Your task to perform on an android device: Clear the cart on newegg.com. Image 0: 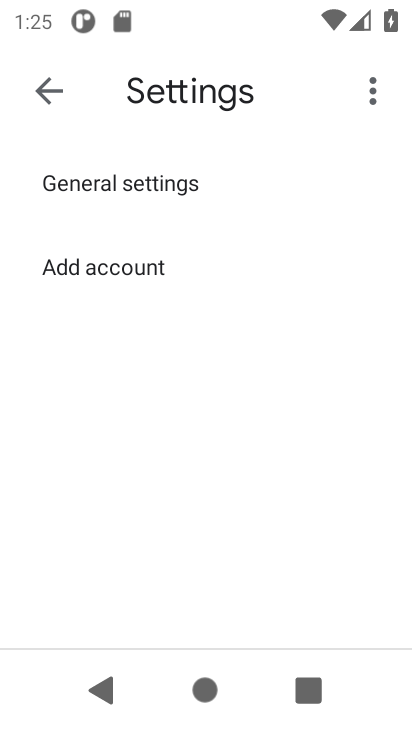
Step 0: press home button
Your task to perform on an android device: Clear the cart on newegg.com. Image 1: 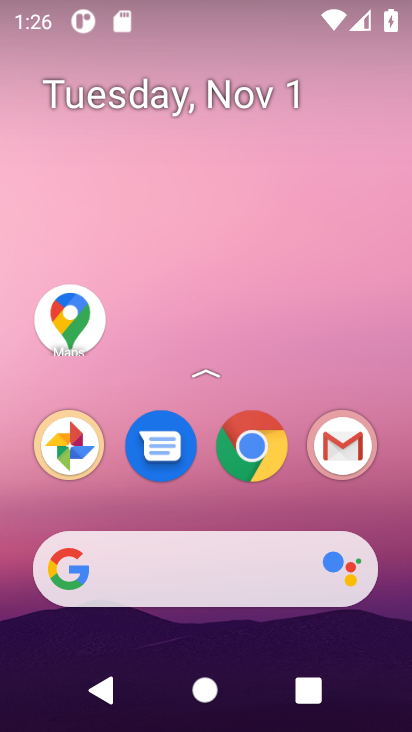
Step 1: click (246, 444)
Your task to perform on an android device: Clear the cart on newegg.com. Image 2: 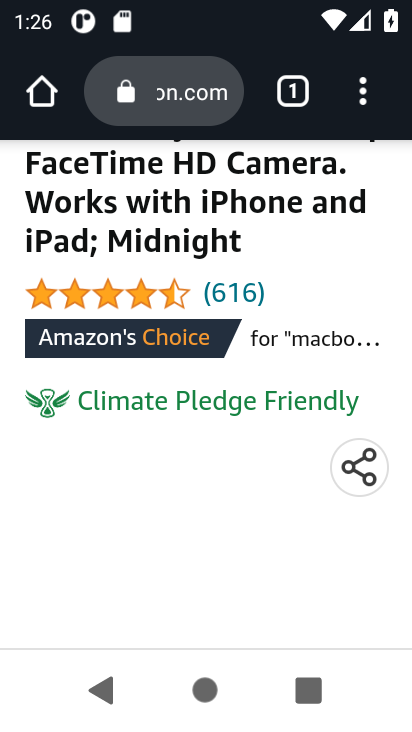
Step 2: click (171, 72)
Your task to perform on an android device: Clear the cart on newegg.com. Image 3: 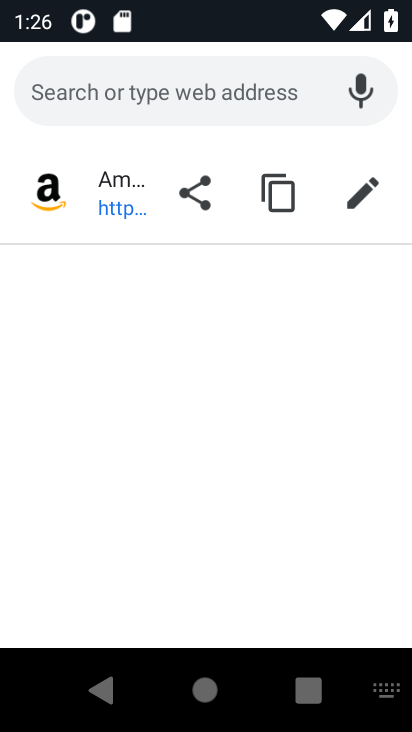
Step 3: type "newegg.com"
Your task to perform on an android device: Clear the cart on newegg.com. Image 4: 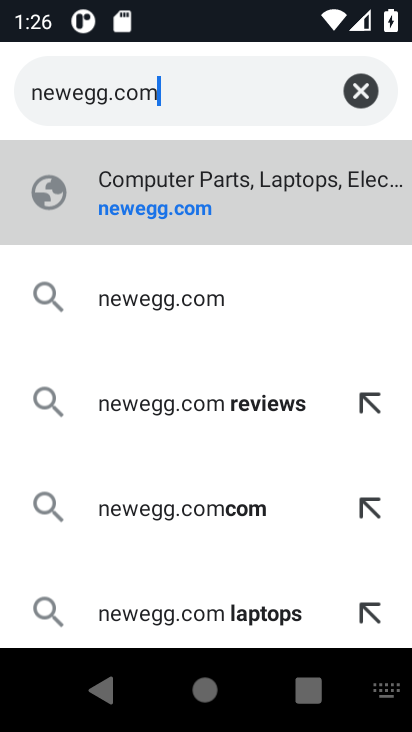
Step 4: click (163, 185)
Your task to perform on an android device: Clear the cart on newegg.com. Image 5: 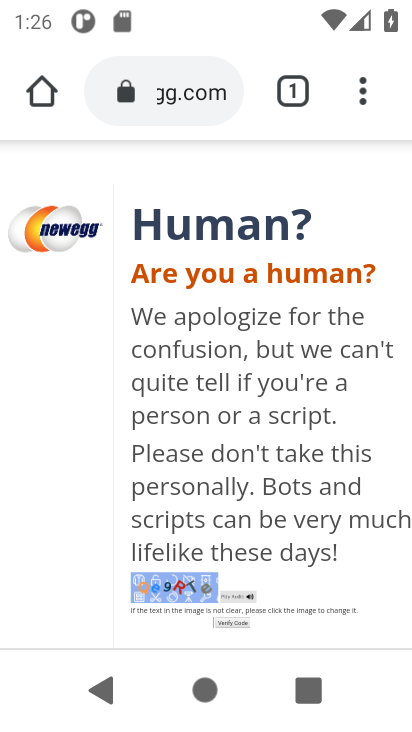
Step 5: drag from (266, 583) to (264, 392)
Your task to perform on an android device: Clear the cart on newegg.com. Image 6: 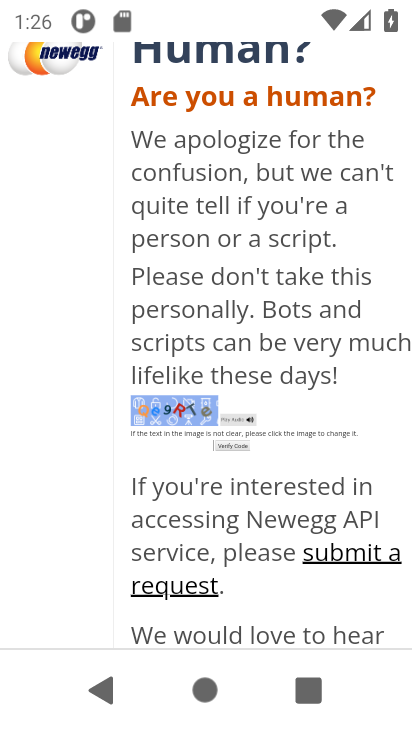
Step 6: click (159, 449)
Your task to perform on an android device: Clear the cart on newegg.com. Image 7: 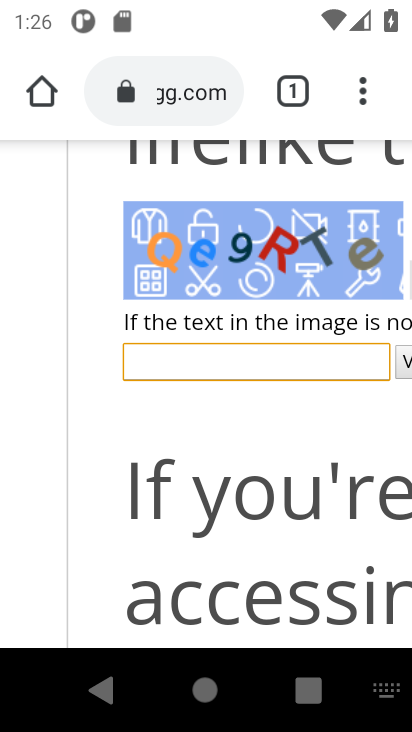
Step 7: type "Qe9RTe"
Your task to perform on an android device: Clear the cart on newegg.com. Image 8: 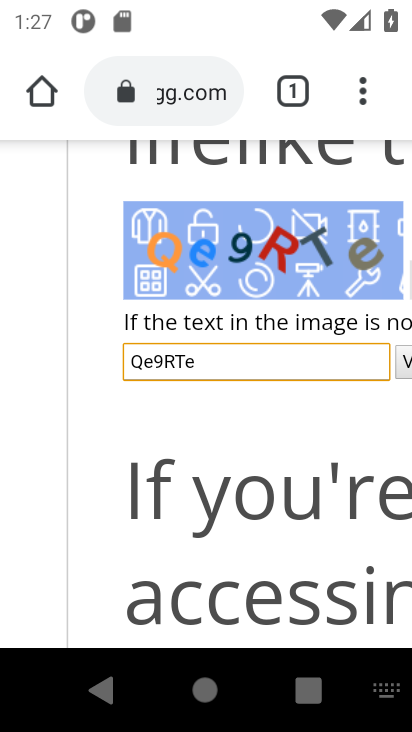
Step 8: click (399, 370)
Your task to perform on an android device: Clear the cart on newegg.com. Image 9: 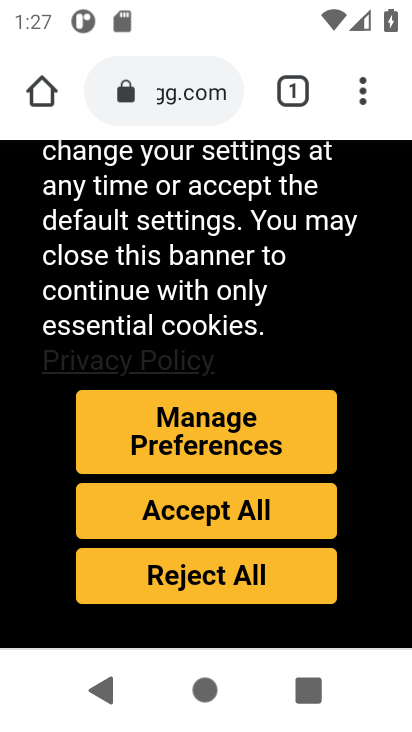
Step 9: click (196, 517)
Your task to perform on an android device: Clear the cart on newegg.com. Image 10: 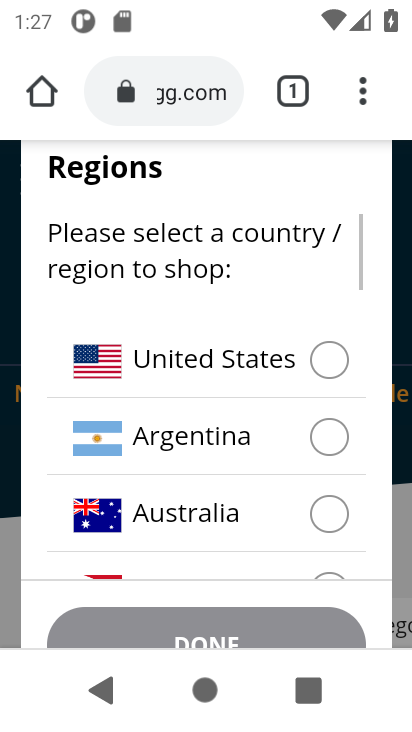
Step 10: click (328, 353)
Your task to perform on an android device: Clear the cart on newegg.com. Image 11: 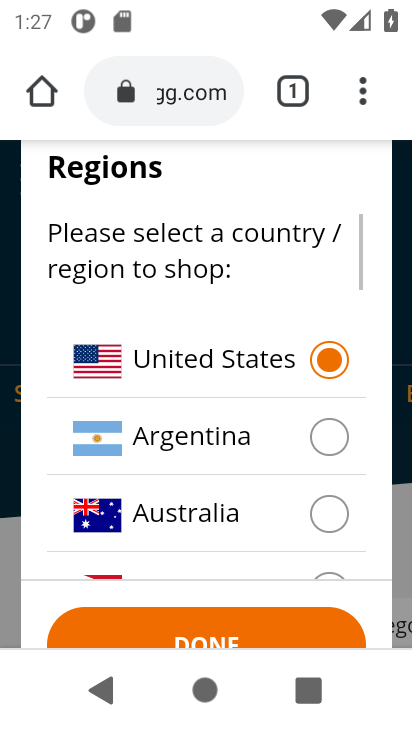
Step 11: click (197, 631)
Your task to perform on an android device: Clear the cart on newegg.com. Image 12: 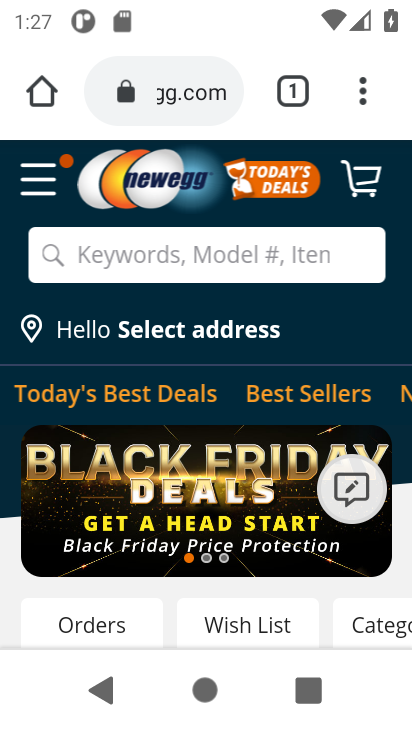
Step 12: click (367, 184)
Your task to perform on an android device: Clear the cart on newegg.com. Image 13: 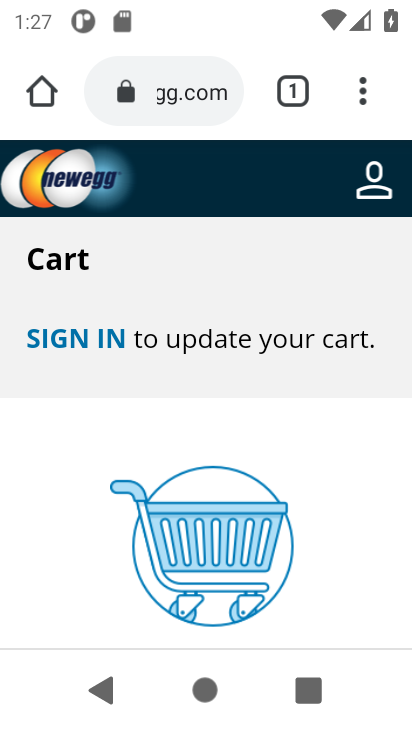
Step 13: task complete